Your task to perform on an android device: search for starred emails in the gmail app Image 0: 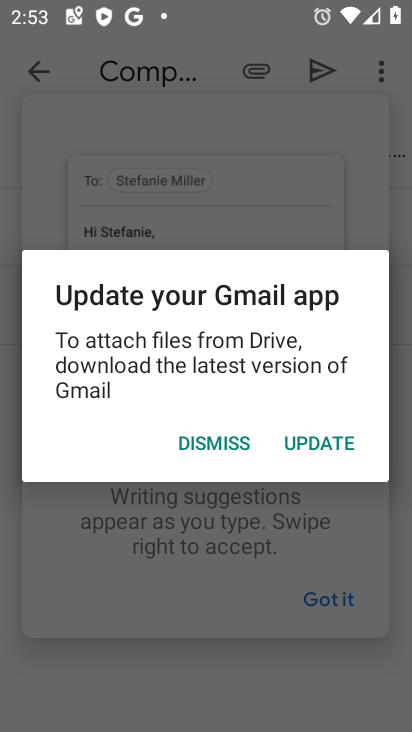
Step 0: press home button
Your task to perform on an android device: search for starred emails in the gmail app Image 1: 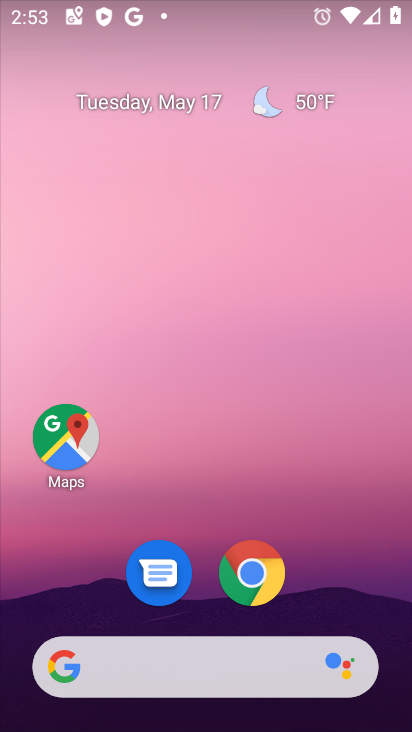
Step 1: drag from (328, 580) to (272, 134)
Your task to perform on an android device: search for starred emails in the gmail app Image 2: 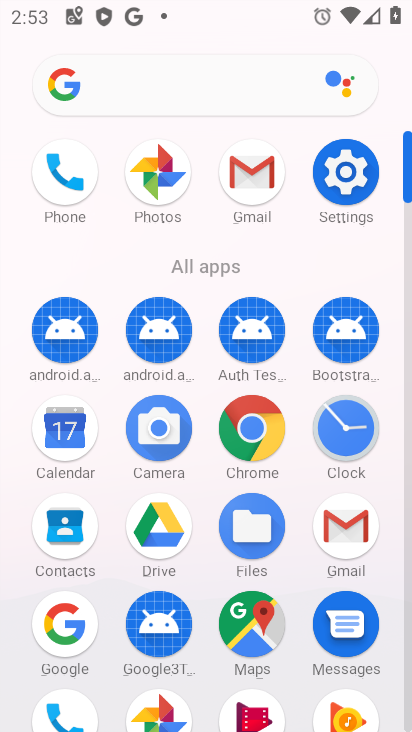
Step 2: click (250, 181)
Your task to perform on an android device: search for starred emails in the gmail app Image 3: 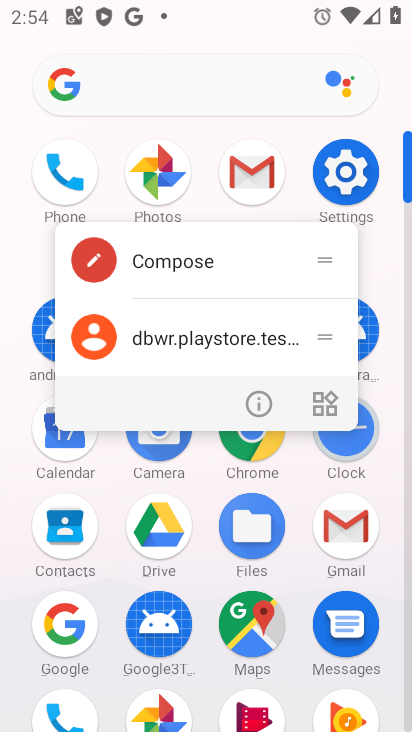
Step 3: click (264, 165)
Your task to perform on an android device: search for starred emails in the gmail app Image 4: 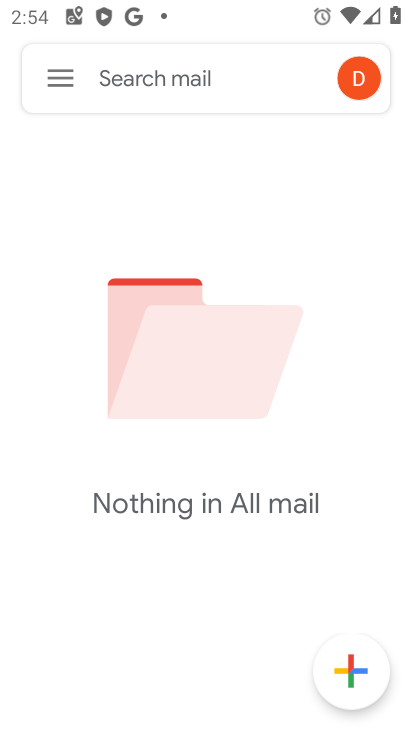
Step 4: click (62, 73)
Your task to perform on an android device: search for starred emails in the gmail app Image 5: 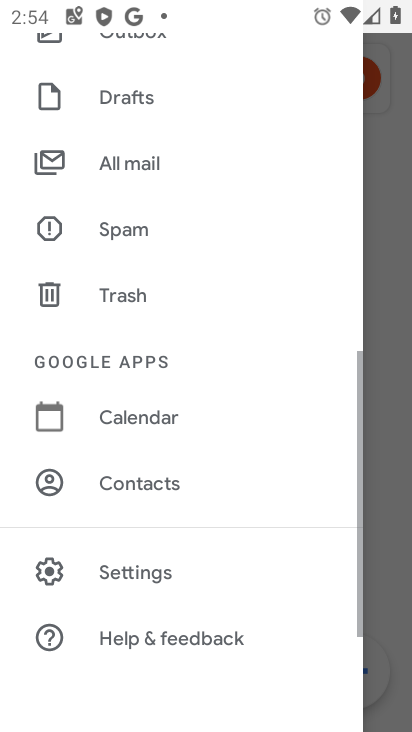
Step 5: drag from (177, 161) to (196, 462)
Your task to perform on an android device: search for starred emails in the gmail app Image 6: 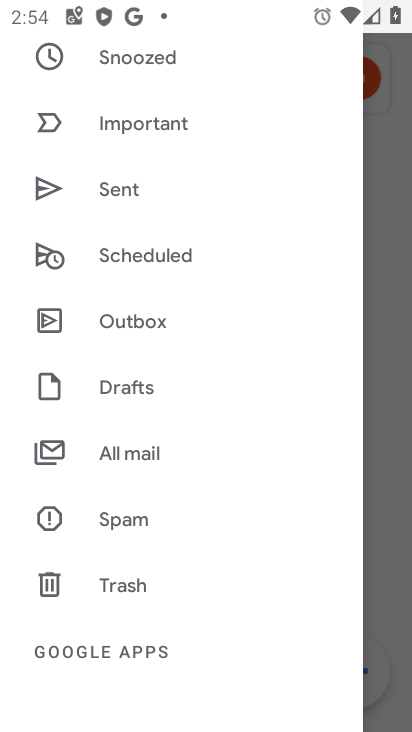
Step 6: drag from (176, 141) to (162, 453)
Your task to perform on an android device: search for starred emails in the gmail app Image 7: 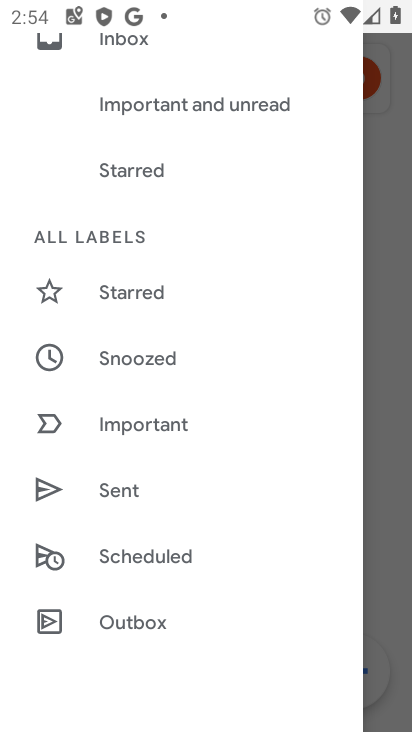
Step 7: click (153, 298)
Your task to perform on an android device: search for starred emails in the gmail app Image 8: 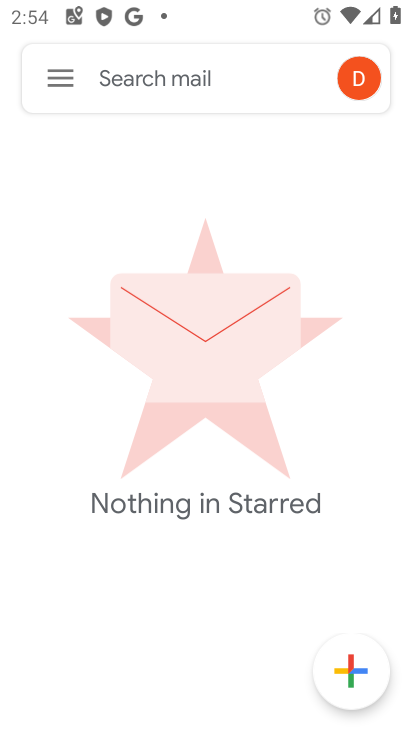
Step 8: task complete